Your task to perform on an android device: Go to Wikipedia Image 0: 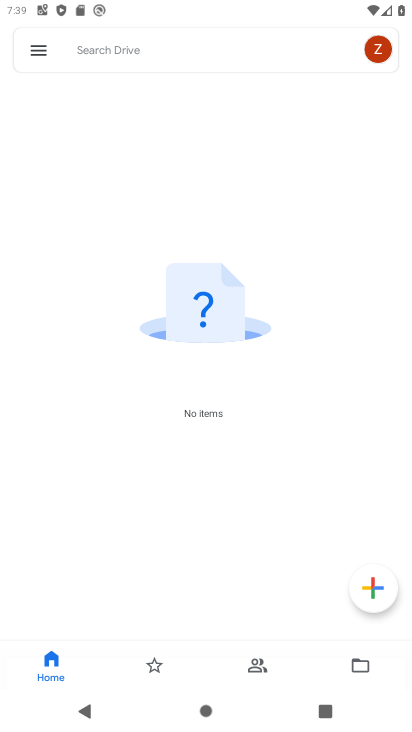
Step 0: press home button
Your task to perform on an android device: Go to Wikipedia Image 1: 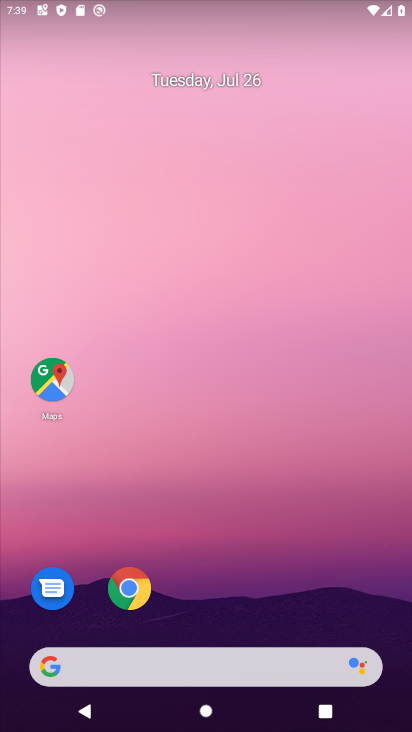
Step 1: click (148, 668)
Your task to perform on an android device: Go to Wikipedia Image 2: 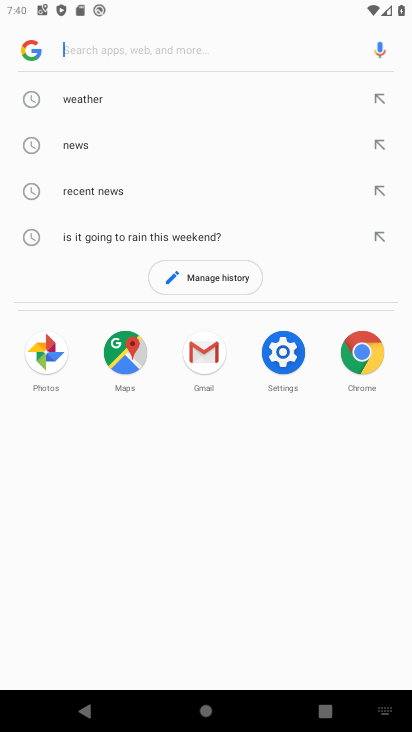
Step 2: type "Wikipedia"
Your task to perform on an android device: Go to Wikipedia Image 3: 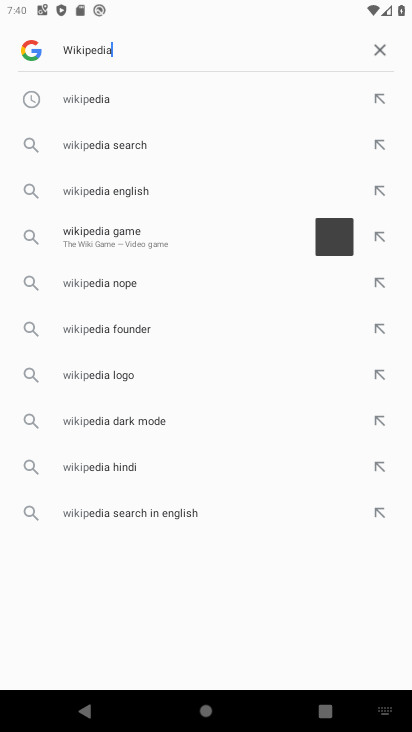
Step 3: press enter
Your task to perform on an android device: Go to Wikipedia Image 4: 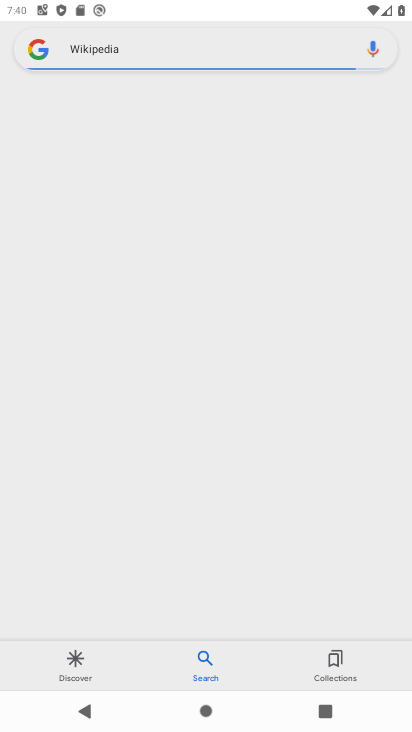
Step 4: task complete